Your task to perform on an android device: Add "macbook air" to the cart on amazon.com Image 0: 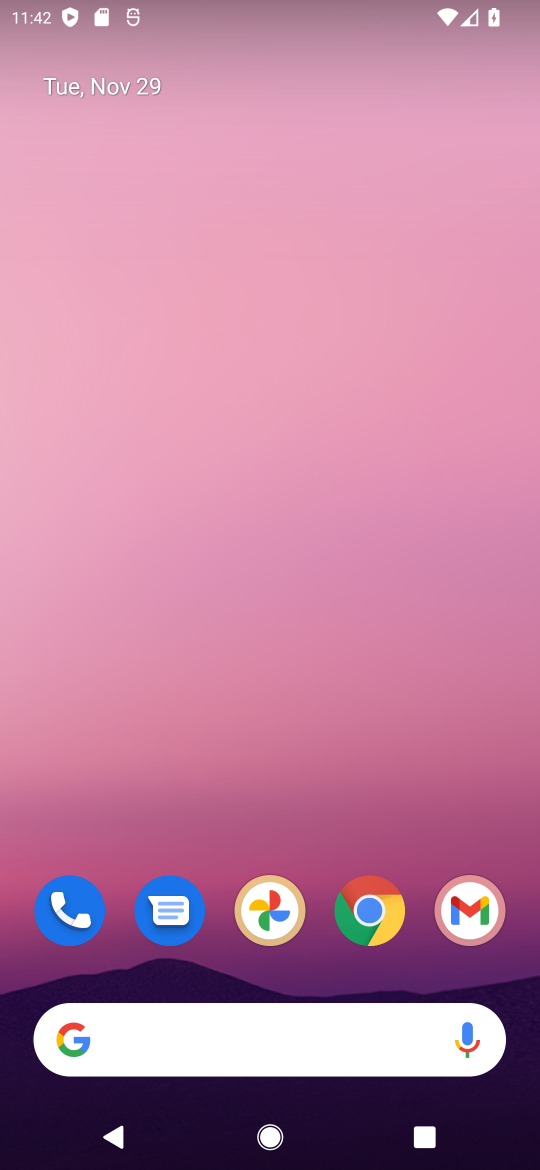
Step 0: click (371, 921)
Your task to perform on an android device: Add "macbook air" to the cart on amazon.com Image 1: 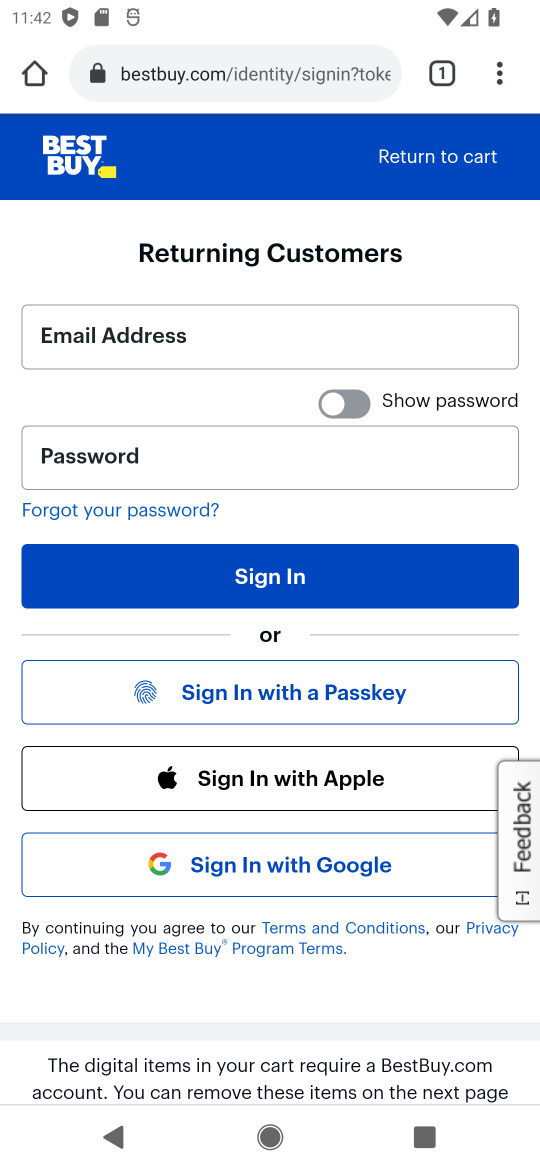
Step 1: click (200, 65)
Your task to perform on an android device: Add "macbook air" to the cart on amazon.com Image 2: 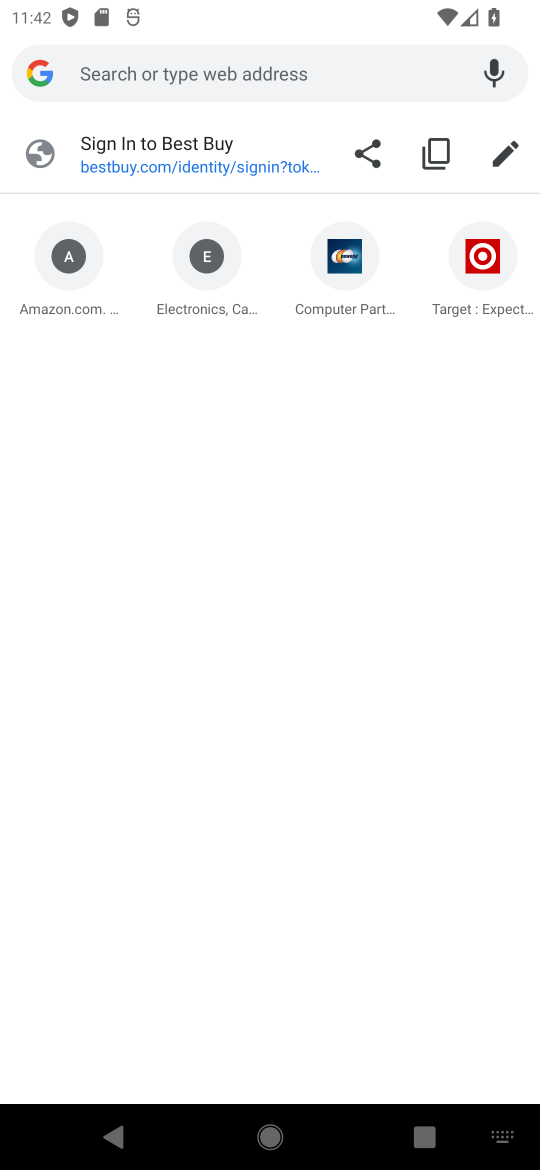
Step 2: click (64, 298)
Your task to perform on an android device: Add "macbook air" to the cart on amazon.com Image 3: 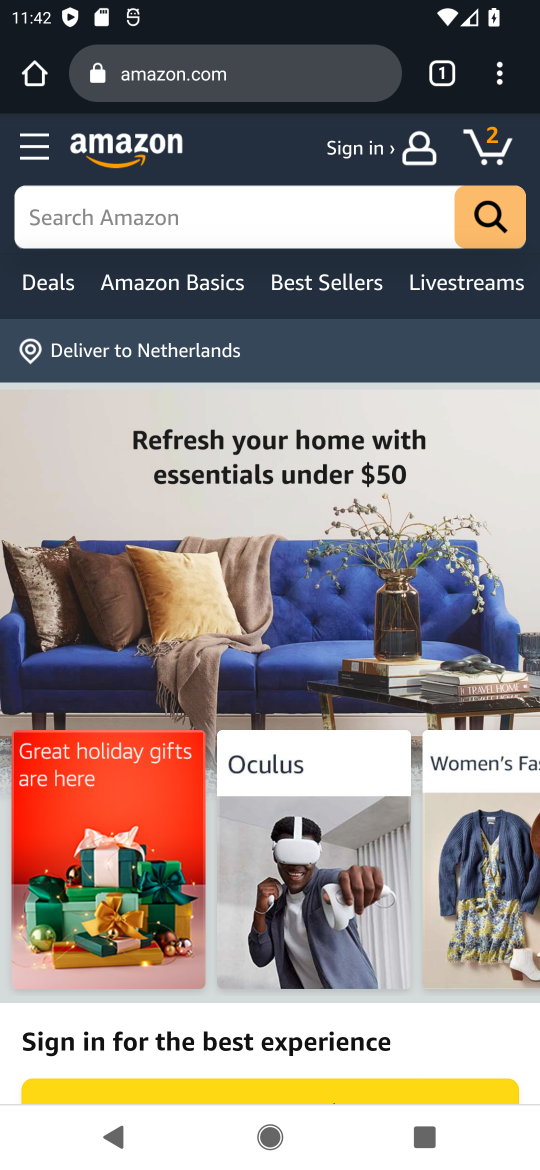
Step 3: click (85, 226)
Your task to perform on an android device: Add "macbook air" to the cart on amazon.com Image 4: 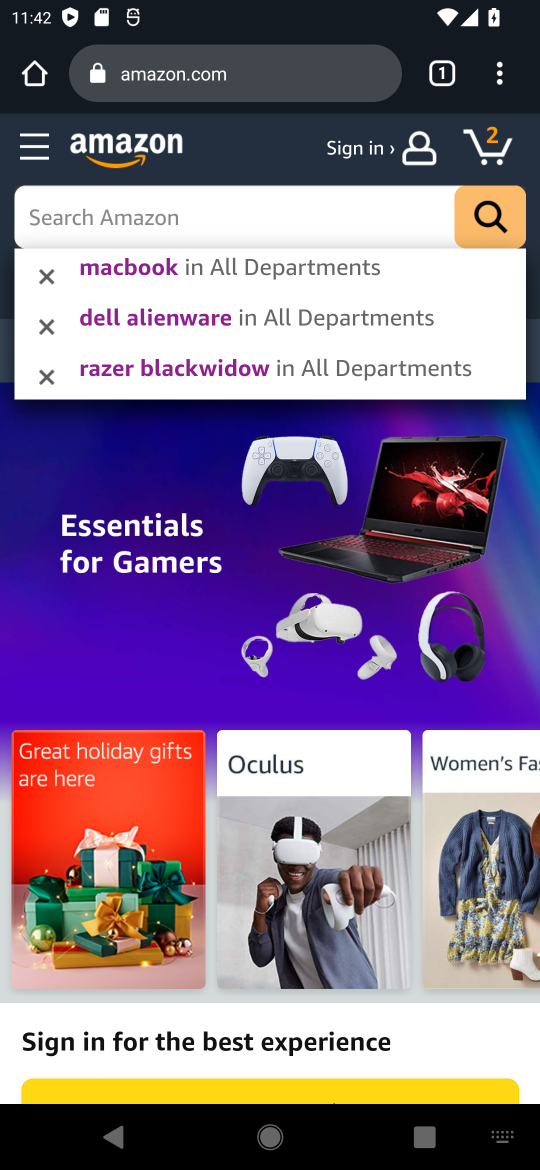
Step 4: type "macbook air"
Your task to perform on an android device: Add "macbook air" to the cart on amazon.com Image 5: 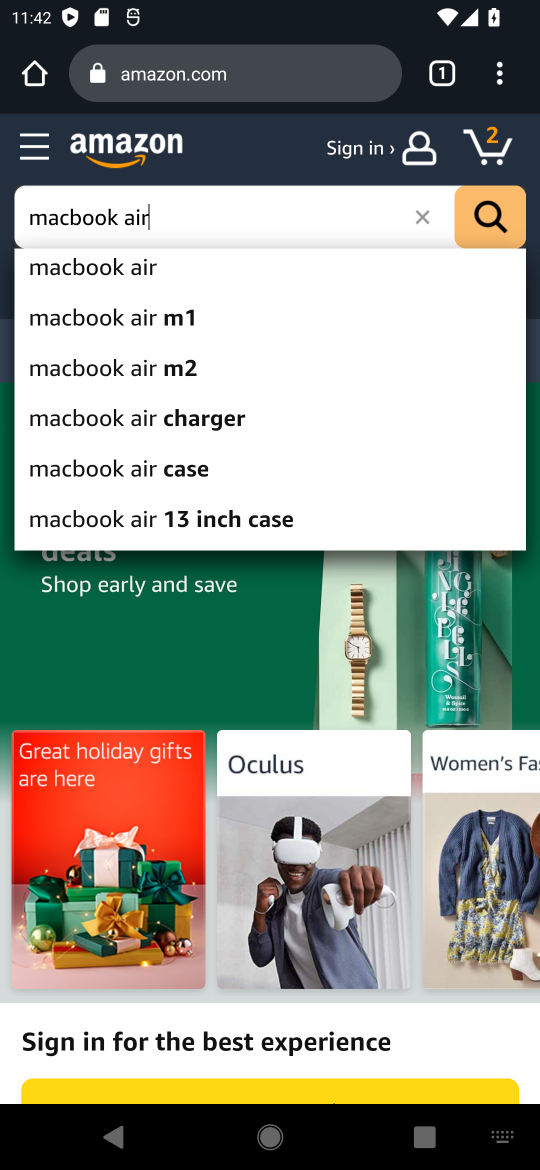
Step 5: click (121, 274)
Your task to perform on an android device: Add "macbook air" to the cart on amazon.com Image 6: 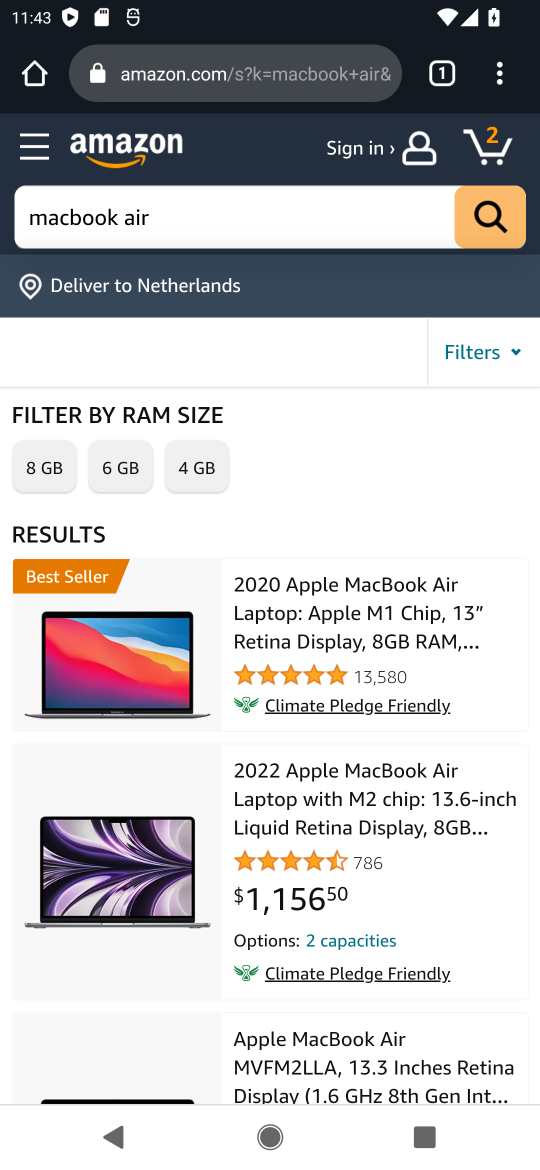
Step 6: drag from (308, 636) to (312, 391)
Your task to perform on an android device: Add "macbook air" to the cart on amazon.com Image 7: 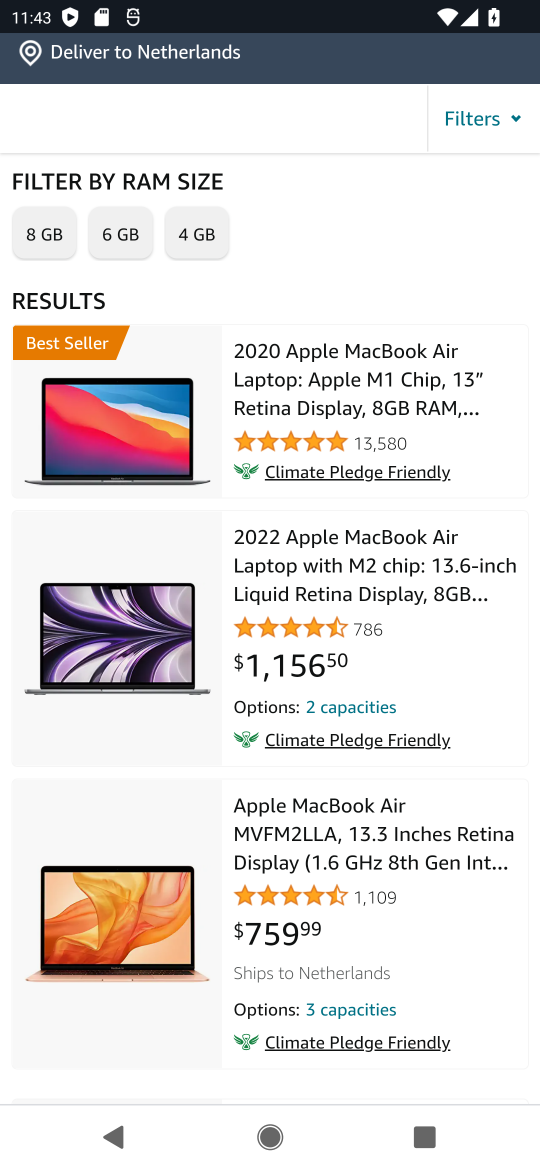
Step 7: drag from (297, 853) to (311, 579)
Your task to perform on an android device: Add "macbook air" to the cart on amazon.com Image 8: 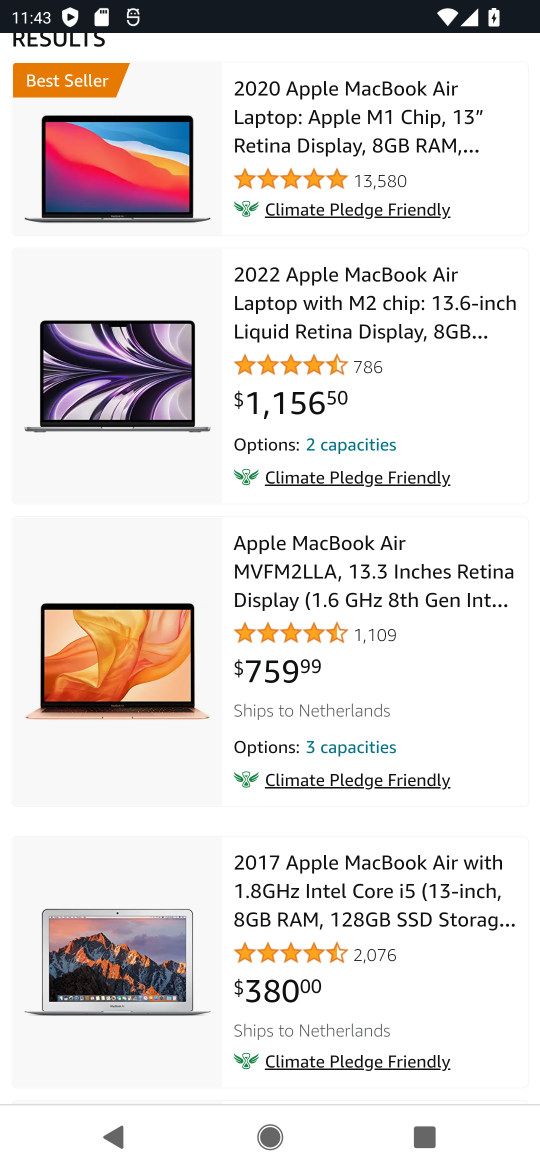
Step 8: click (297, 913)
Your task to perform on an android device: Add "macbook air" to the cart on amazon.com Image 9: 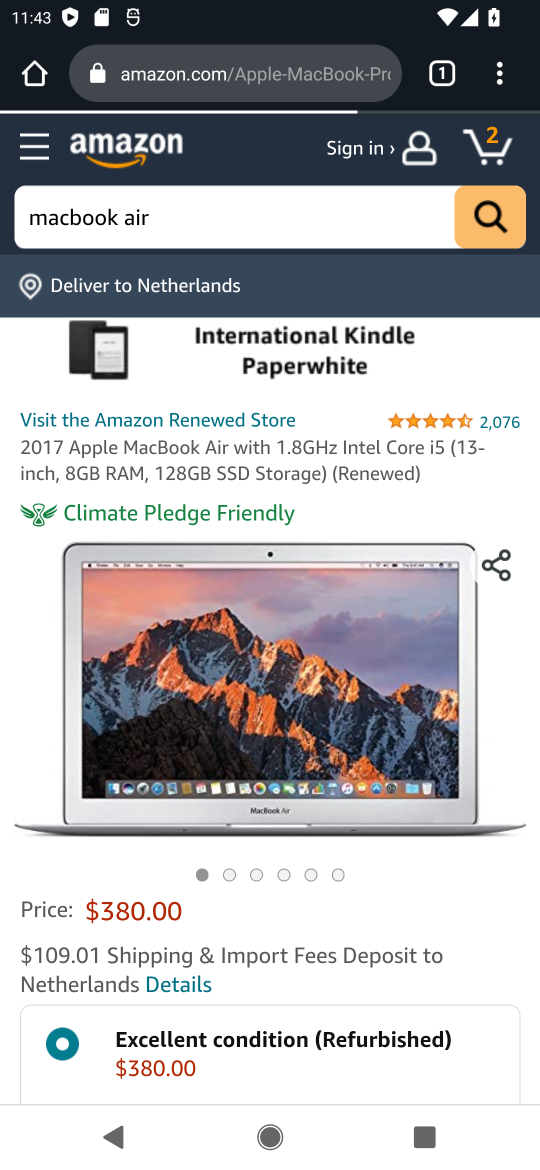
Step 9: drag from (297, 913) to (287, 408)
Your task to perform on an android device: Add "macbook air" to the cart on amazon.com Image 10: 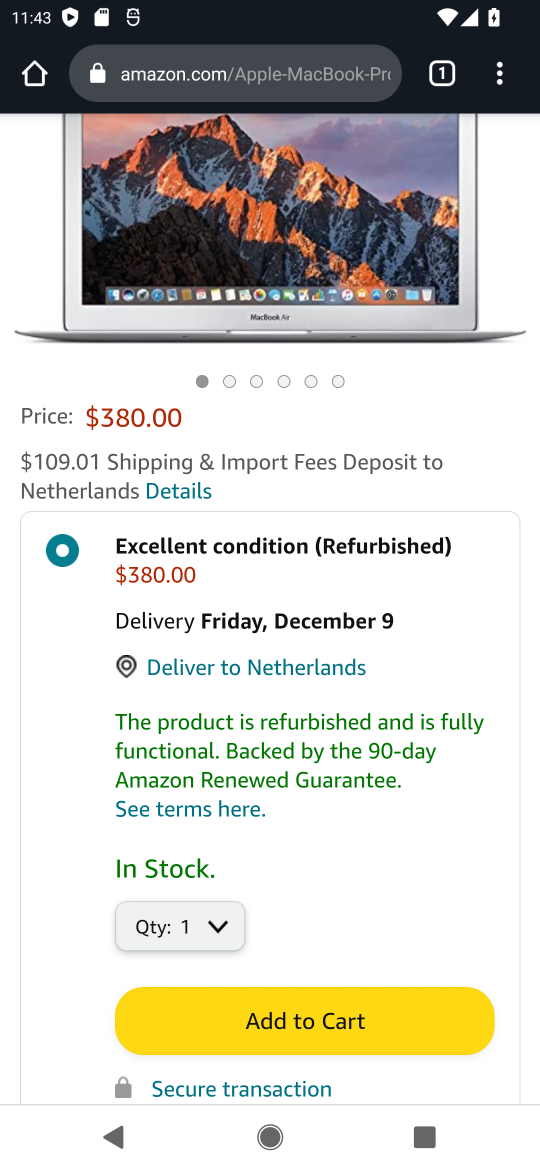
Step 10: click (333, 1010)
Your task to perform on an android device: Add "macbook air" to the cart on amazon.com Image 11: 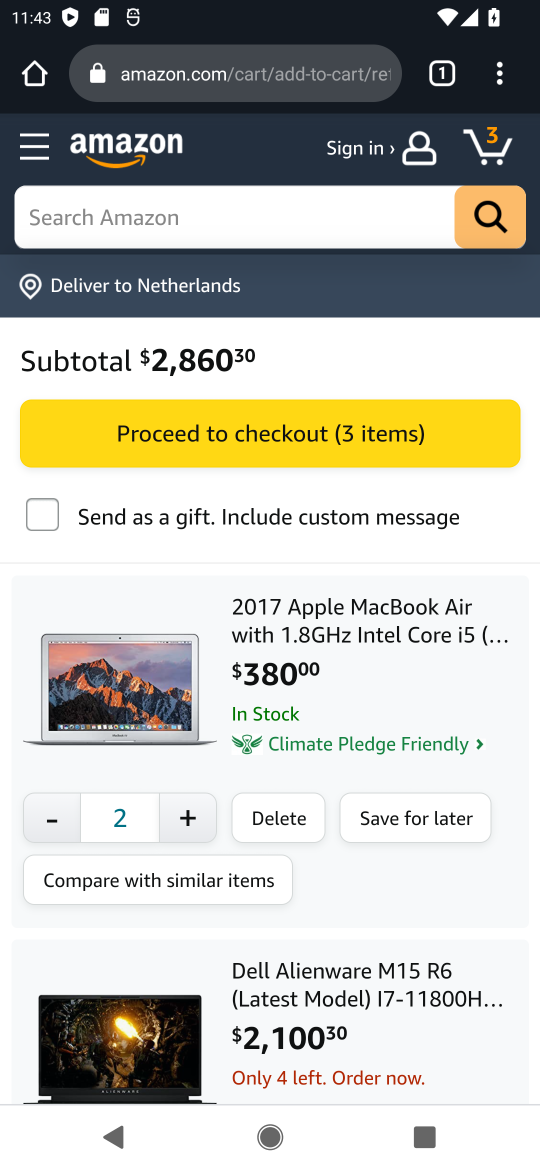
Step 11: task complete